Your task to perform on an android device: Go to Amazon Image 0: 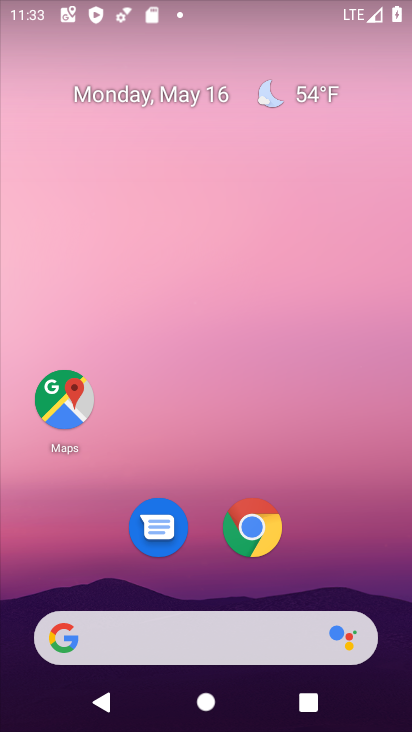
Step 0: drag from (293, 597) to (189, 249)
Your task to perform on an android device: Go to Amazon Image 1: 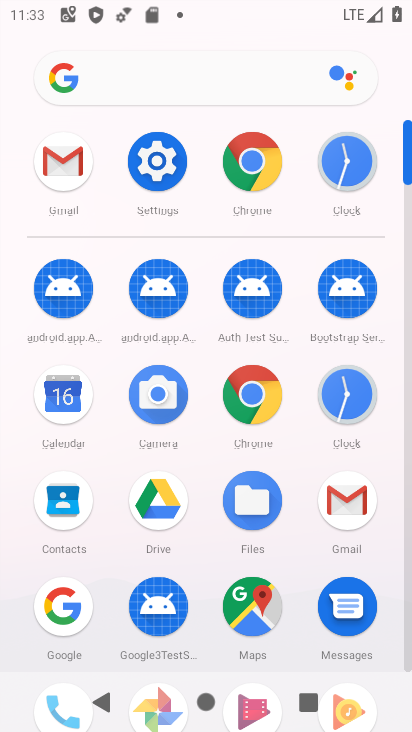
Step 1: click (262, 190)
Your task to perform on an android device: Go to Amazon Image 2: 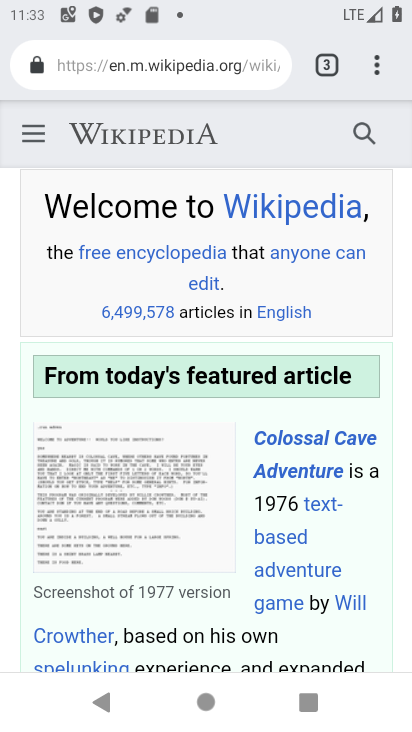
Step 2: click (323, 62)
Your task to perform on an android device: Go to Amazon Image 3: 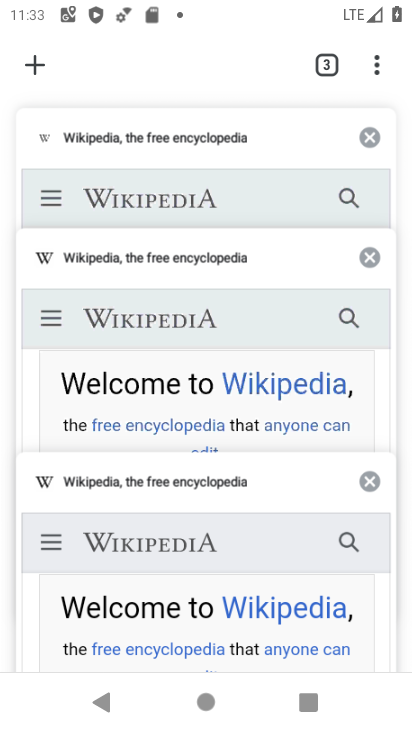
Step 3: click (33, 47)
Your task to perform on an android device: Go to Amazon Image 4: 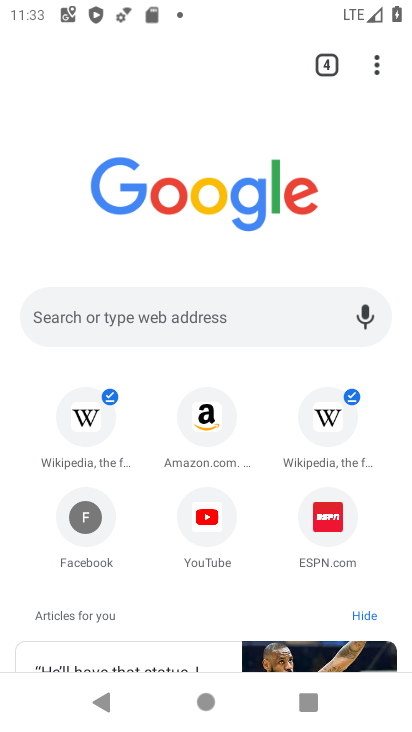
Step 4: click (197, 427)
Your task to perform on an android device: Go to Amazon Image 5: 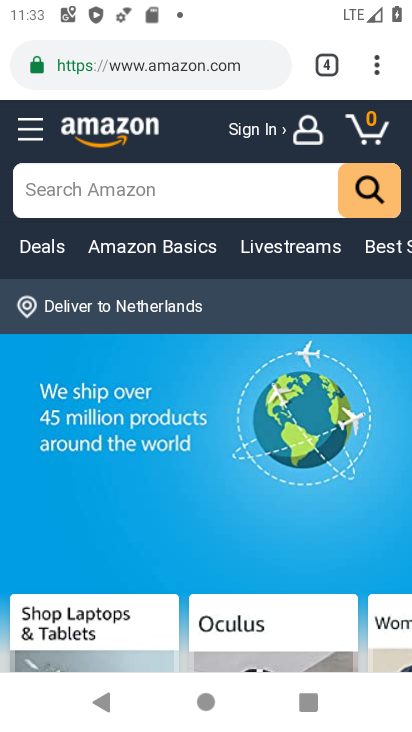
Step 5: task complete